Your task to perform on an android device: check data usage Image 0: 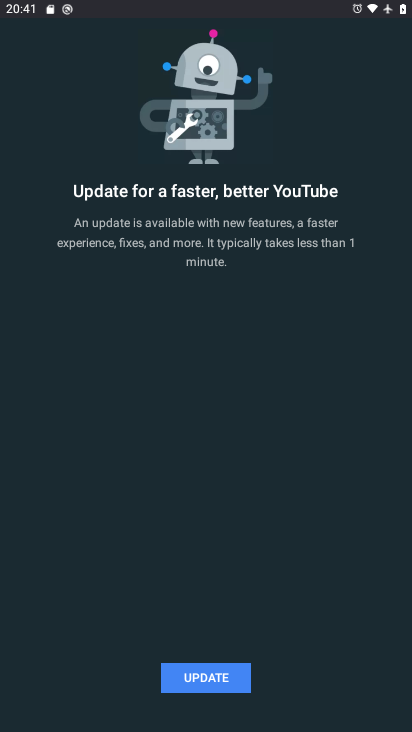
Step 0: press home button
Your task to perform on an android device: check data usage Image 1: 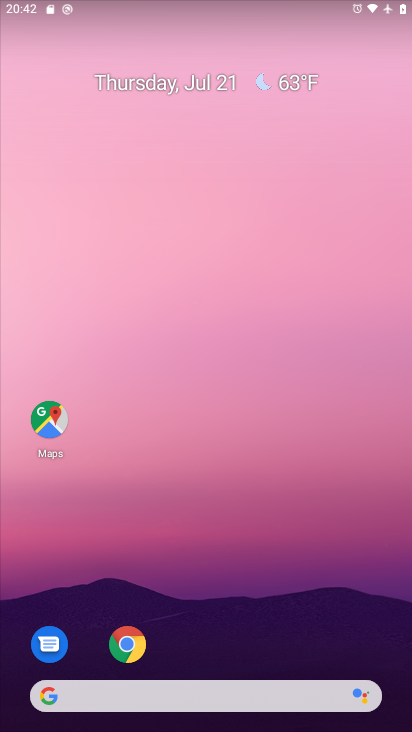
Step 1: drag from (184, 613) to (198, 147)
Your task to perform on an android device: check data usage Image 2: 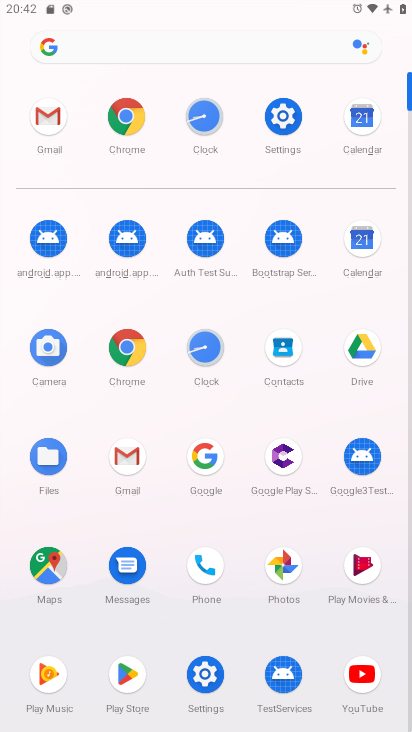
Step 2: click (291, 113)
Your task to perform on an android device: check data usage Image 3: 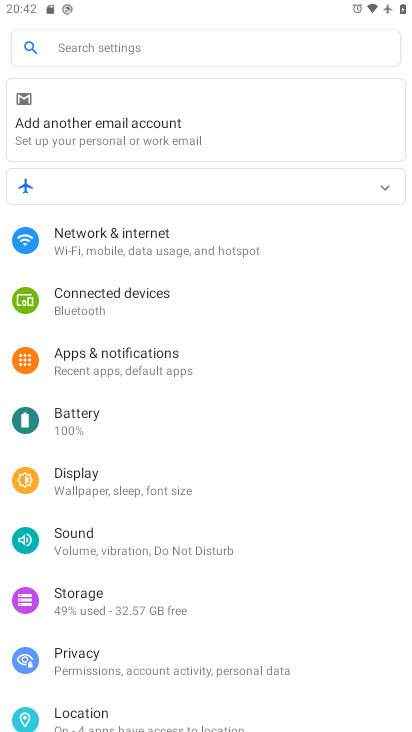
Step 3: click (133, 243)
Your task to perform on an android device: check data usage Image 4: 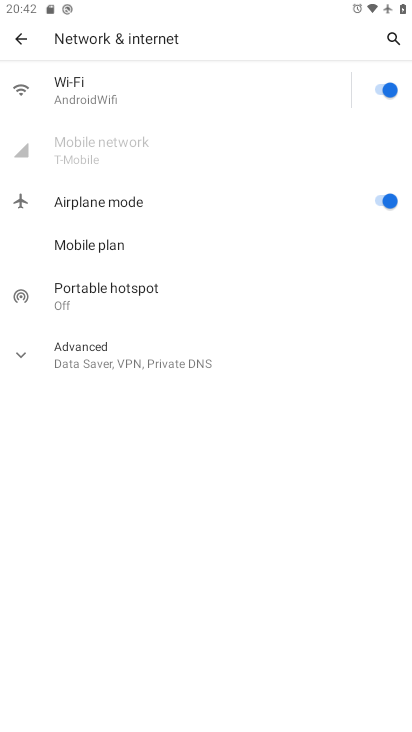
Step 4: click (126, 161)
Your task to perform on an android device: check data usage Image 5: 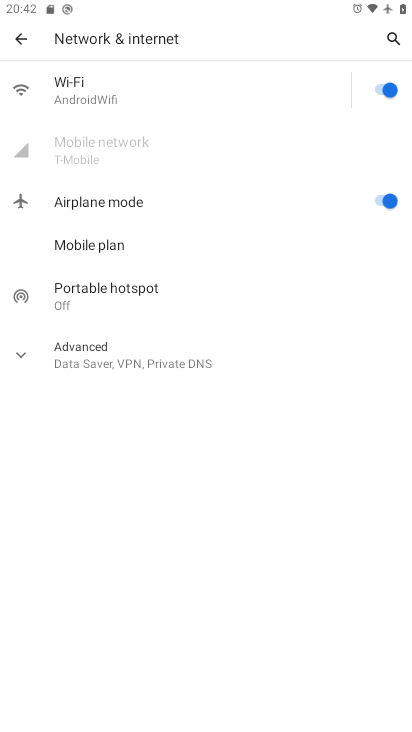
Step 5: click (126, 161)
Your task to perform on an android device: check data usage Image 6: 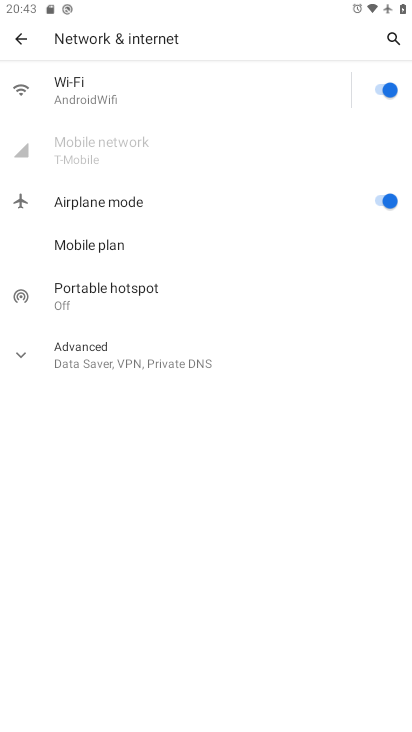
Step 6: task complete